Your task to perform on an android device: find which apps use the phone's location Image 0: 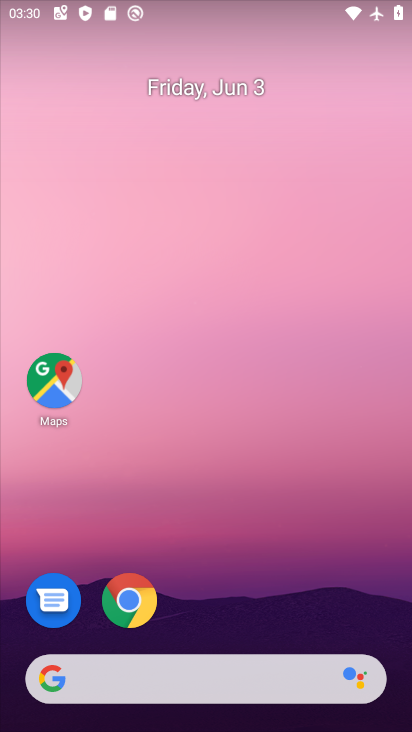
Step 0: drag from (216, 582) to (285, 47)
Your task to perform on an android device: find which apps use the phone's location Image 1: 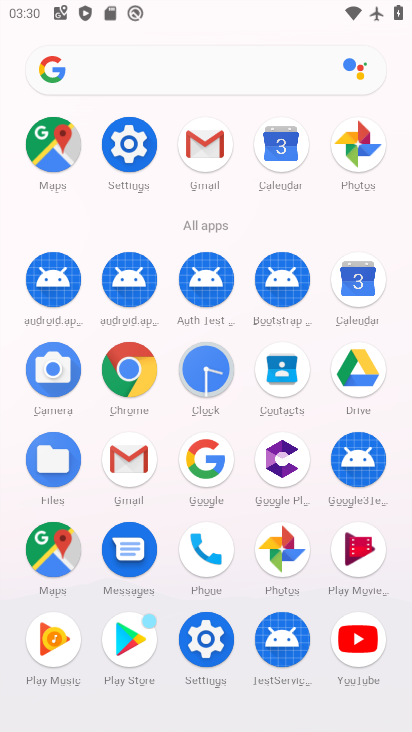
Step 1: click (221, 650)
Your task to perform on an android device: find which apps use the phone's location Image 2: 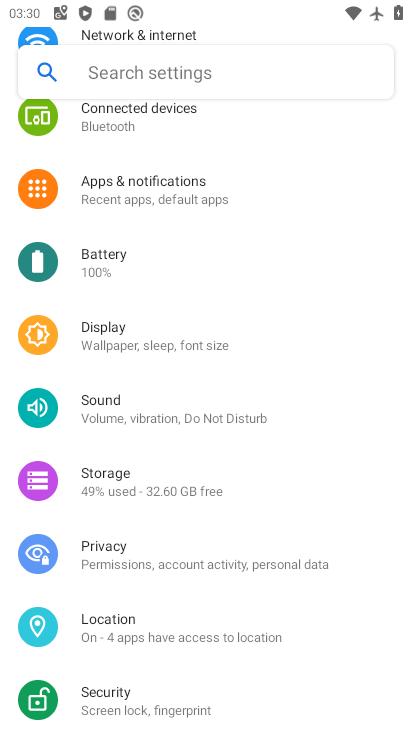
Step 2: click (168, 630)
Your task to perform on an android device: find which apps use the phone's location Image 3: 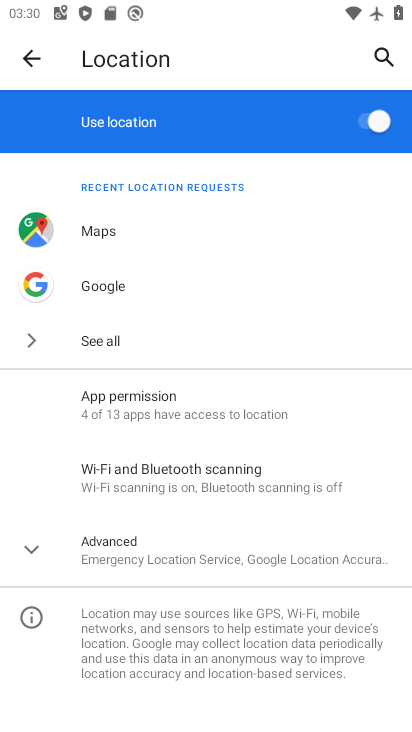
Step 3: click (176, 407)
Your task to perform on an android device: find which apps use the phone's location Image 4: 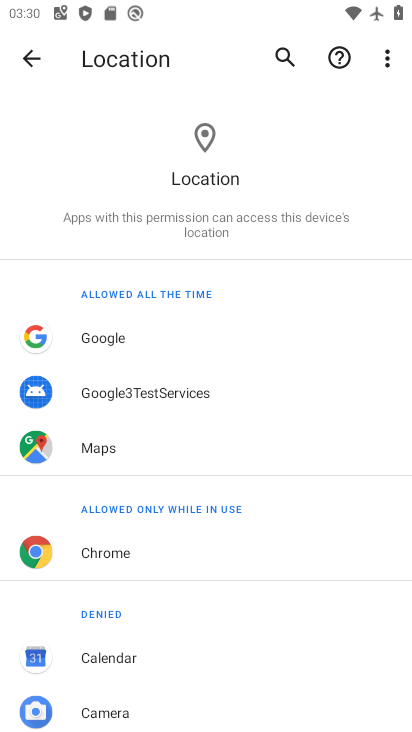
Step 4: task complete